Your task to perform on an android device: delete location history Image 0: 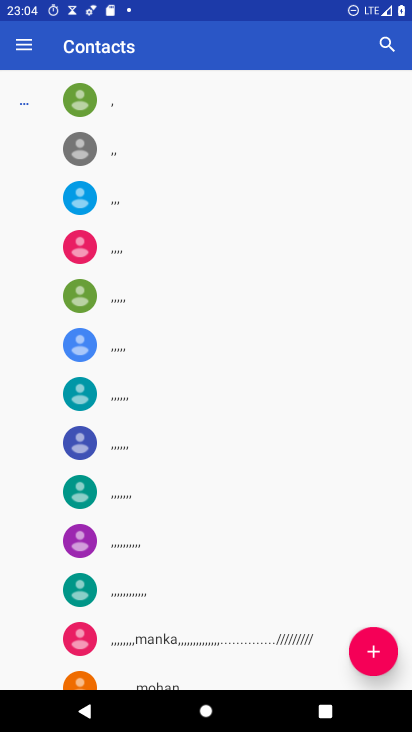
Step 0: press back button
Your task to perform on an android device: delete location history Image 1: 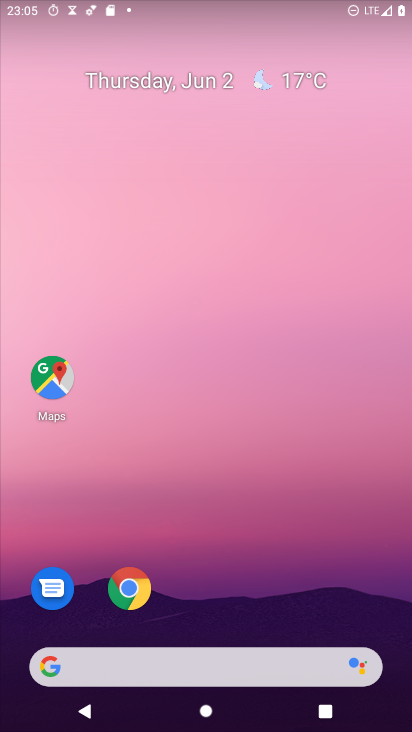
Step 1: click (35, 367)
Your task to perform on an android device: delete location history Image 2: 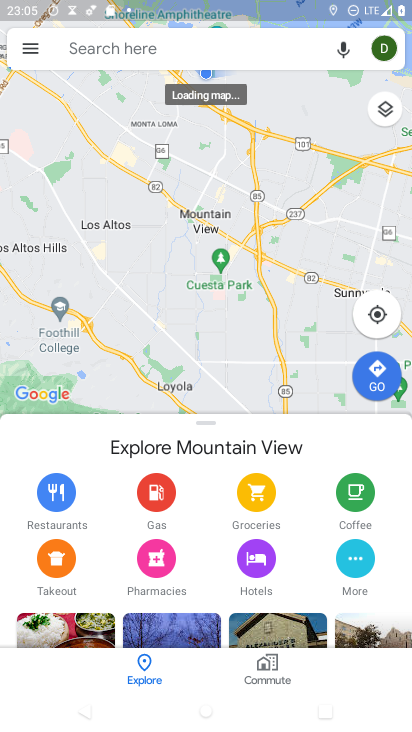
Step 2: click (37, 44)
Your task to perform on an android device: delete location history Image 3: 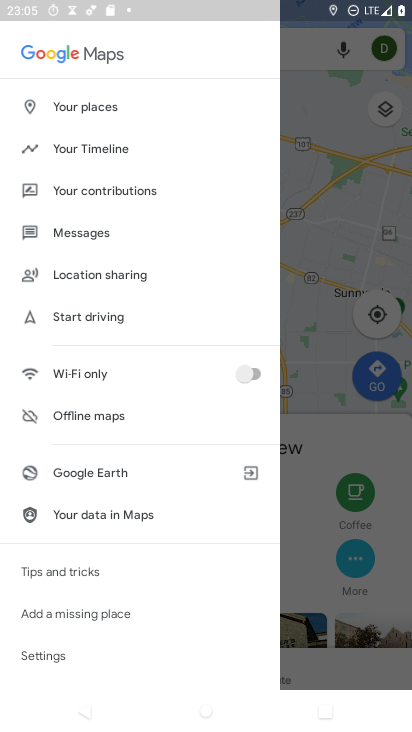
Step 3: click (112, 146)
Your task to perform on an android device: delete location history Image 4: 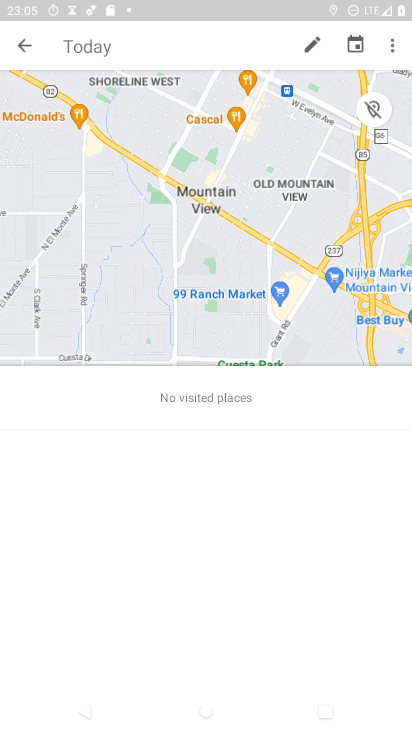
Step 4: click (395, 40)
Your task to perform on an android device: delete location history Image 5: 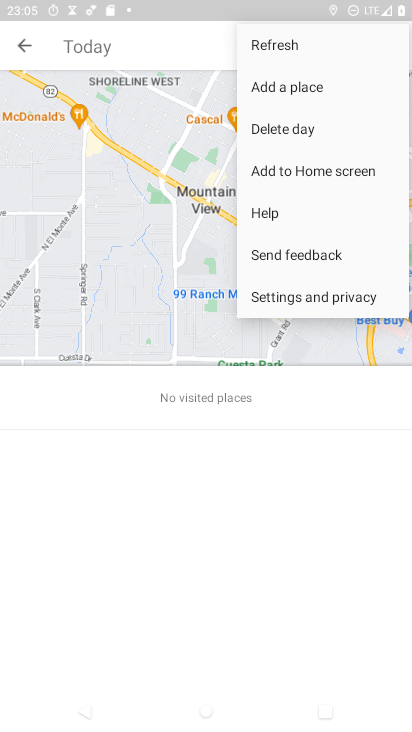
Step 5: click (292, 300)
Your task to perform on an android device: delete location history Image 6: 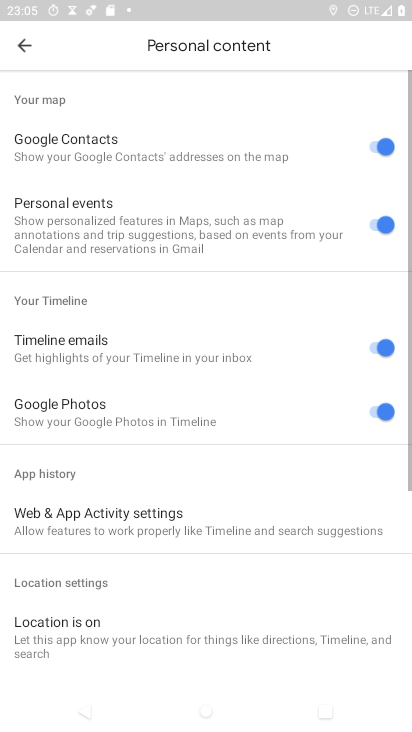
Step 6: drag from (122, 642) to (237, 162)
Your task to perform on an android device: delete location history Image 7: 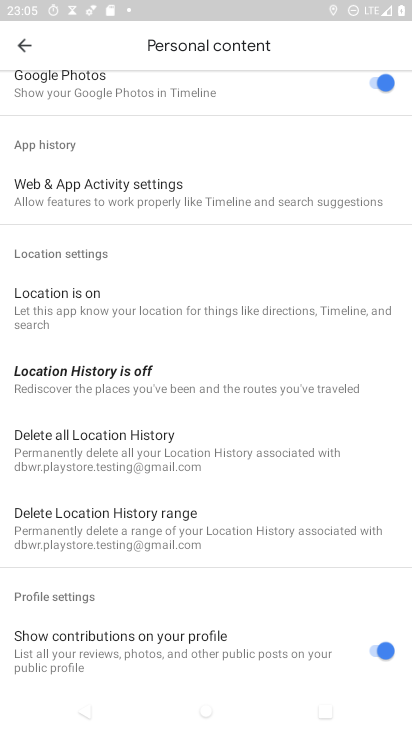
Step 7: click (106, 454)
Your task to perform on an android device: delete location history Image 8: 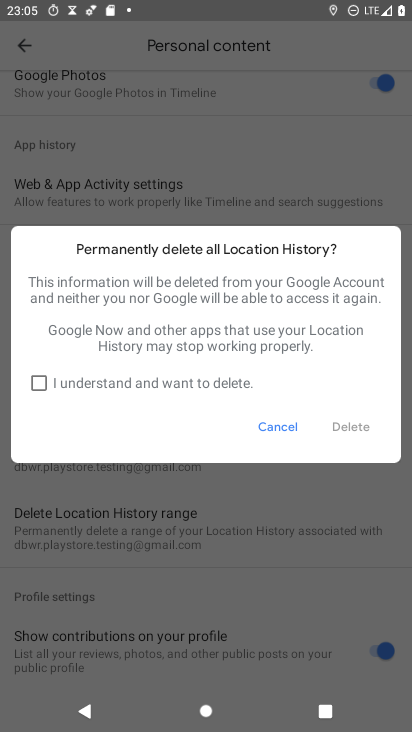
Step 8: click (40, 378)
Your task to perform on an android device: delete location history Image 9: 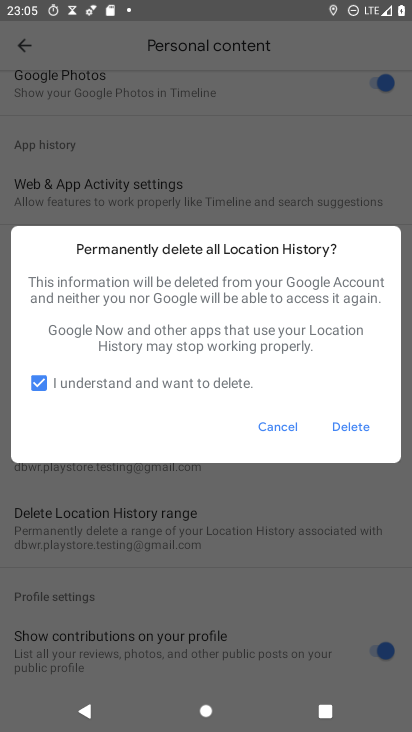
Step 9: click (340, 419)
Your task to perform on an android device: delete location history Image 10: 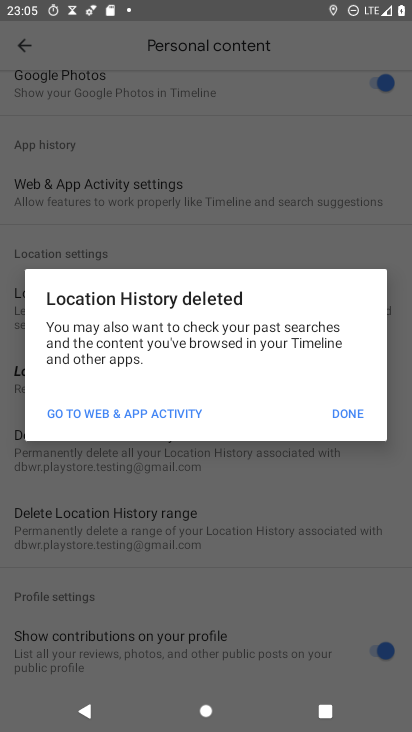
Step 10: click (337, 420)
Your task to perform on an android device: delete location history Image 11: 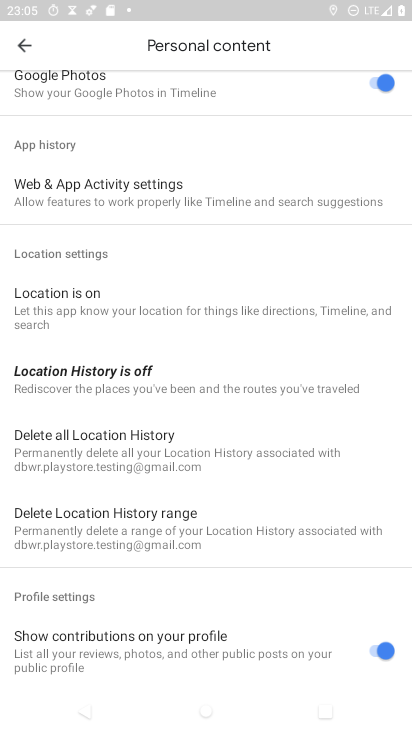
Step 11: task complete